Your task to perform on an android device: all mails in gmail Image 0: 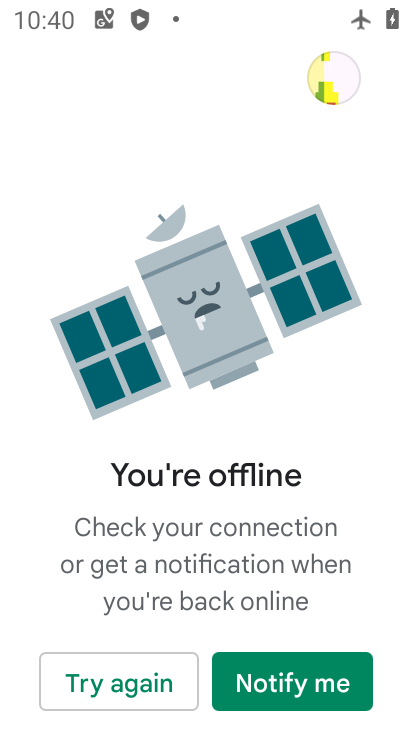
Step 0: press home button
Your task to perform on an android device: all mails in gmail Image 1: 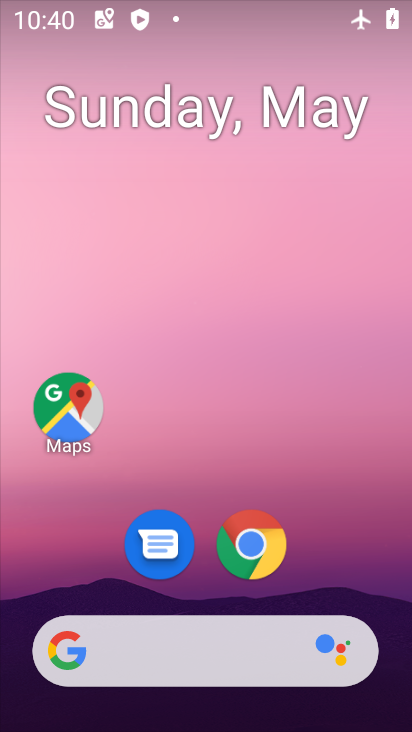
Step 1: drag from (302, 585) to (320, 214)
Your task to perform on an android device: all mails in gmail Image 2: 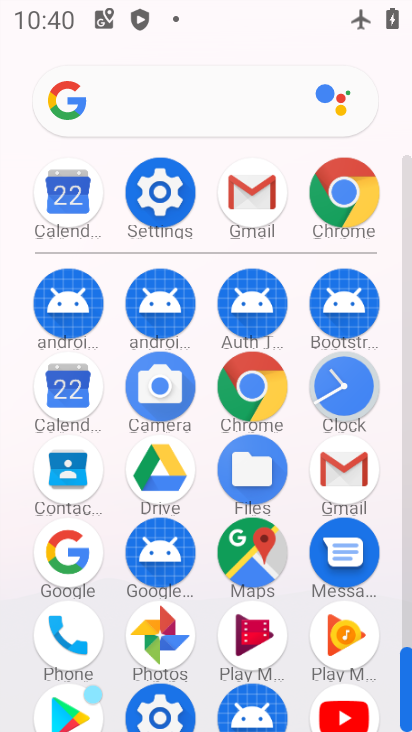
Step 2: click (335, 462)
Your task to perform on an android device: all mails in gmail Image 3: 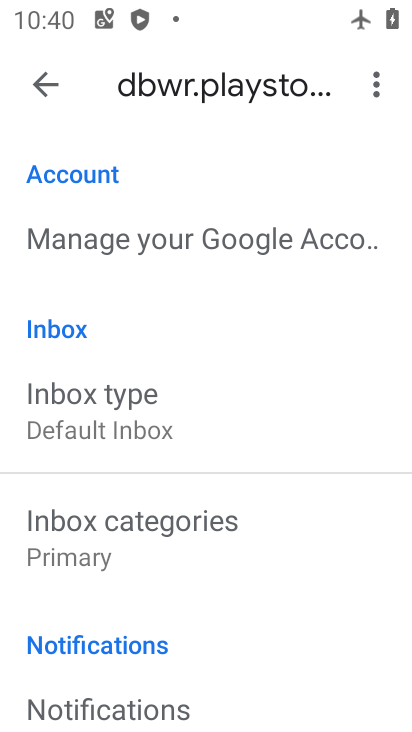
Step 3: drag from (191, 527) to (212, 197)
Your task to perform on an android device: all mails in gmail Image 4: 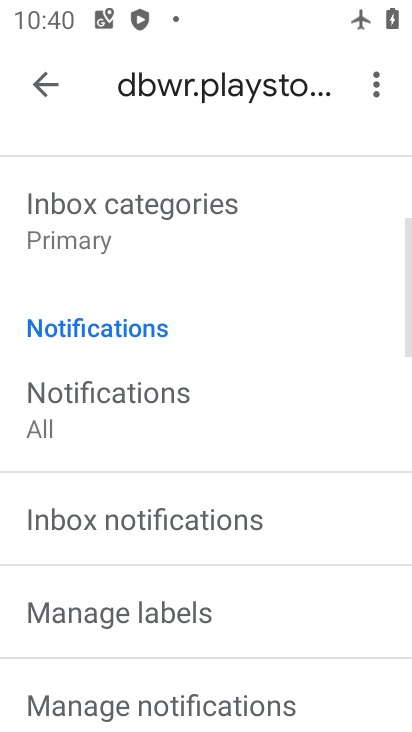
Step 4: click (37, 75)
Your task to perform on an android device: all mails in gmail Image 5: 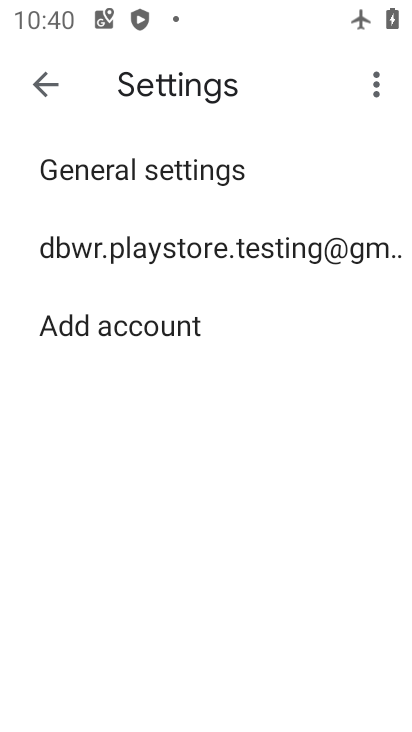
Step 5: click (37, 81)
Your task to perform on an android device: all mails in gmail Image 6: 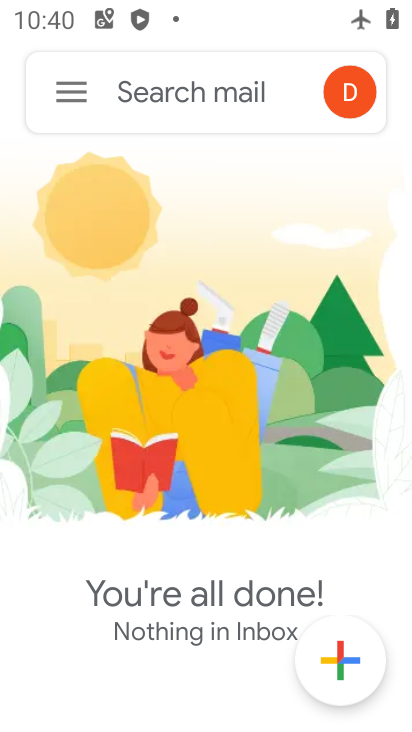
Step 6: click (57, 91)
Your task to perform on an android device: all mails in gmail Image 7: 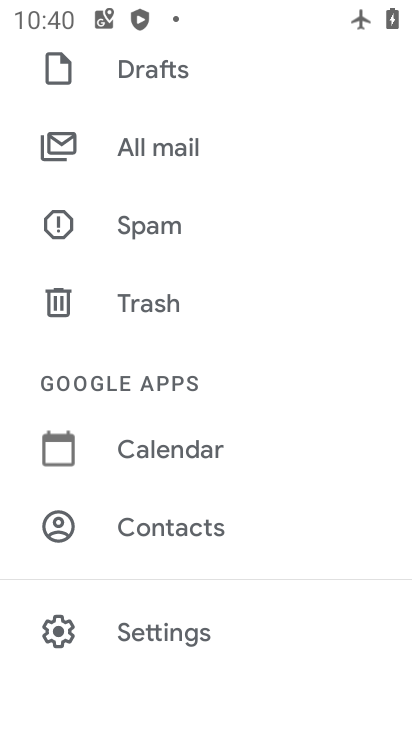
Step 7: click (213, 148)
Your task to perform on an android device: all mails in gmail Image 8: 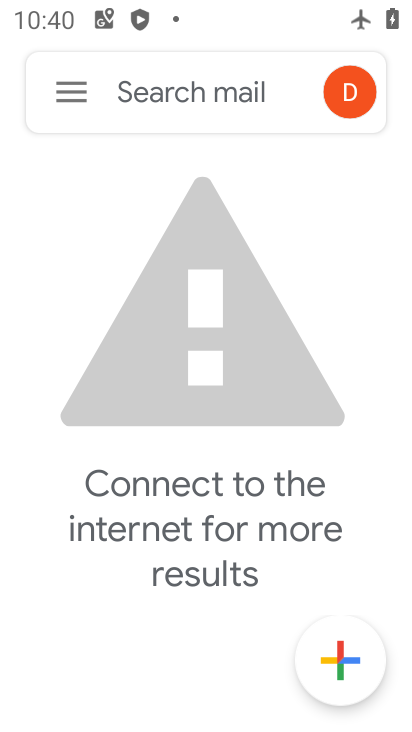
Step 8: task complete